Your task to perform on an android device: Search for Mexican restaurants on Maps Image 0: 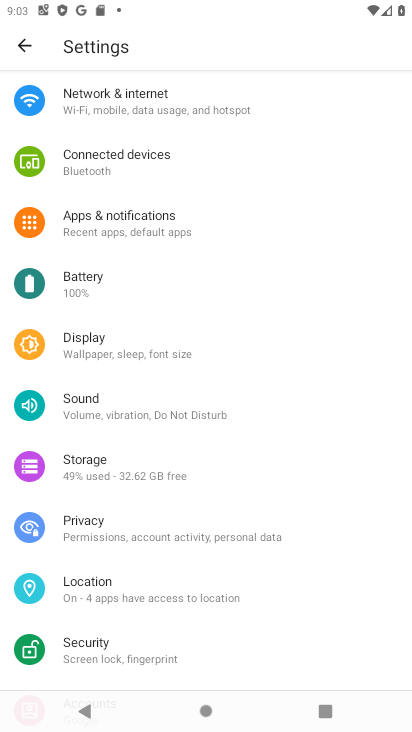
Step 0: press home button
Your task to perform on an android device: Search for Mexican restaurants on Maps Image 1: 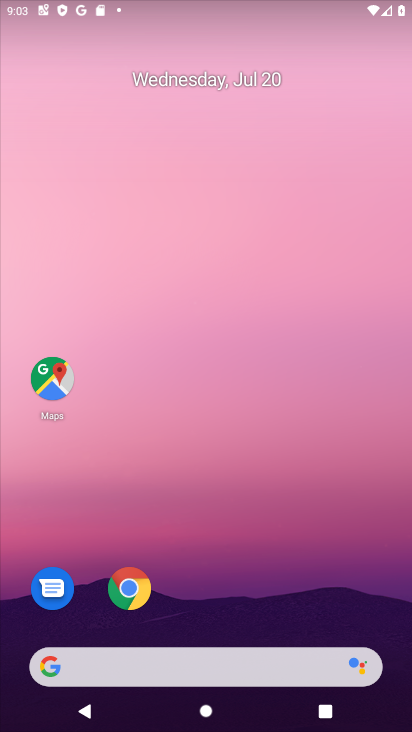
Step 1: drag from (158, 640) to (154, 56)
Your task to perform on an android device: Search for Mexican restaurants on Maps Image 2: 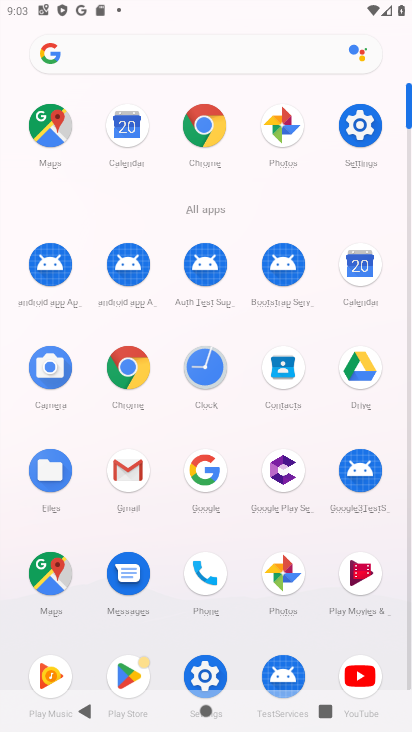
Step 2: click (48, 569)
Your task to perform on an android device: Search for Mexican restaurants on Maps Image 3: 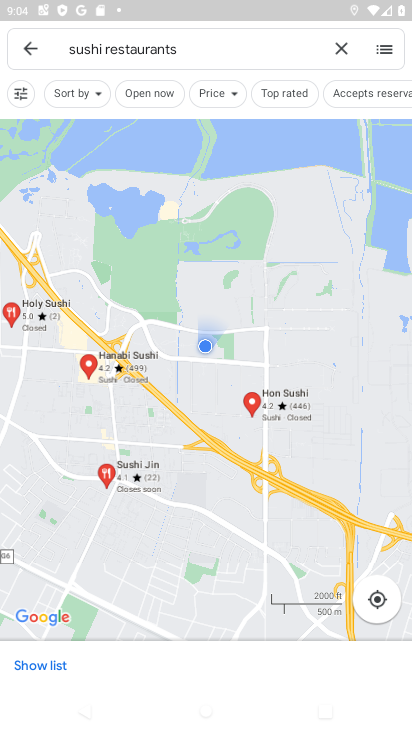
Step 3: click (200, 57)
Your task to perform on an android device: Search for Mexican restaurants on Maps Image 4: 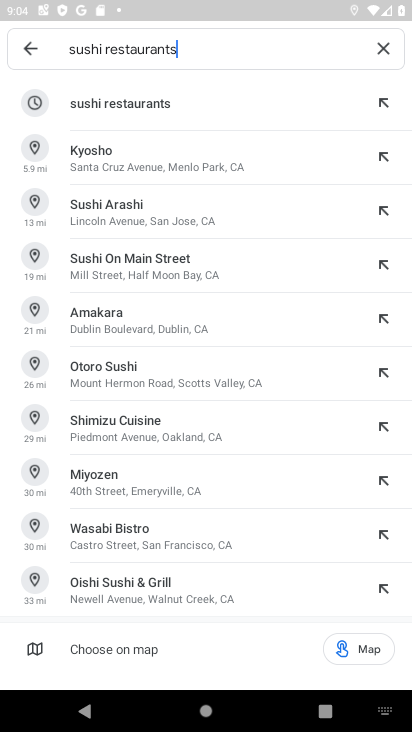
Step 4: click (387, 46)
Your task to perform on an android device: Search for Mexican restaurants on Maps Image 5: 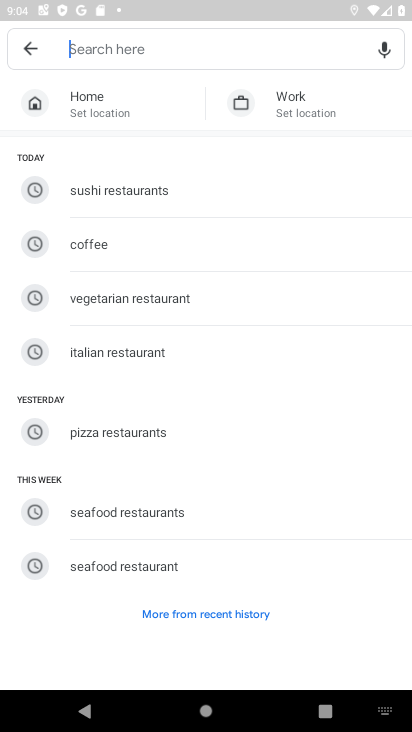
Step 5: type "mexican res"
Your task to perform on an android device: Search for Mexican restaurants on Maps Image 6: 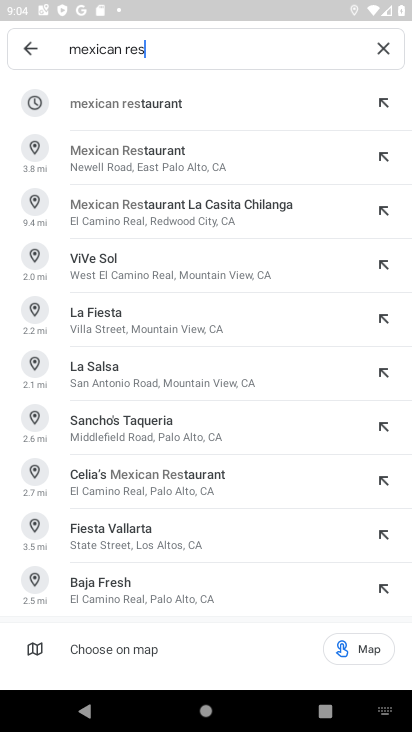
Step 6: click (144, 121)
Your task to perform on an android device: Search for Mexican restaurants on Maps Image 7: 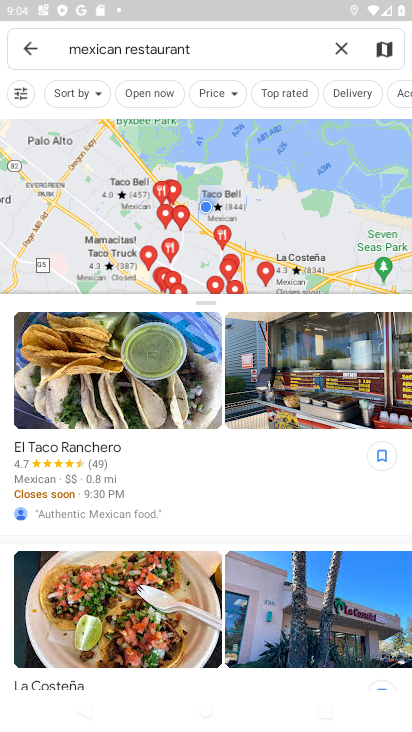
Step 7: task complete